Your task to perform on an android device: Go to ESPN.com Image 0: 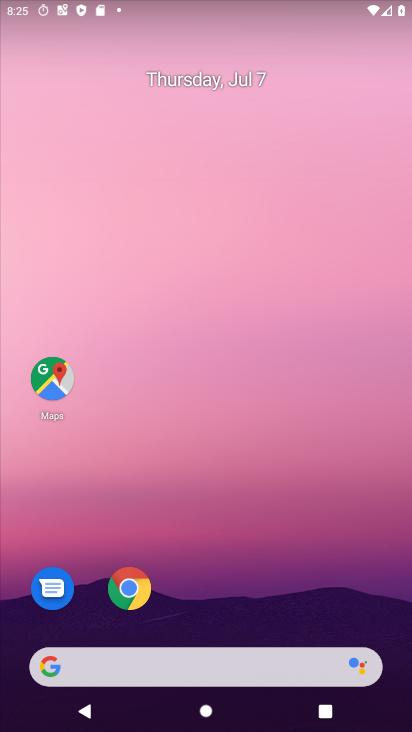
Step 0: click (128, 592)
Your task to perform on an android device: Go to ESPN.com Image 1: 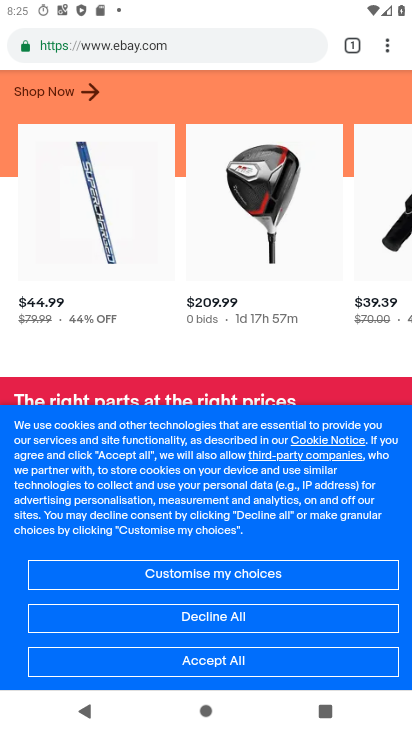
Step 1: drag from (389, 44) to (280, 86)
Your task to perform on an android device: Go to ESPN.com Image 2: 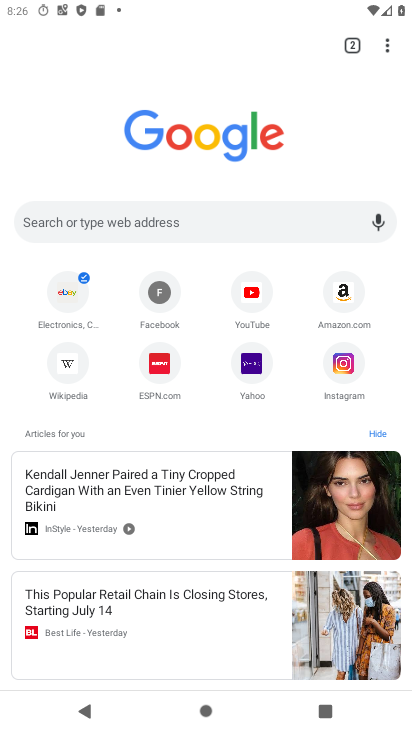
Step 2: click (164, 363)
Your task to perform on an android device: Go to ESPN.com Image 3: 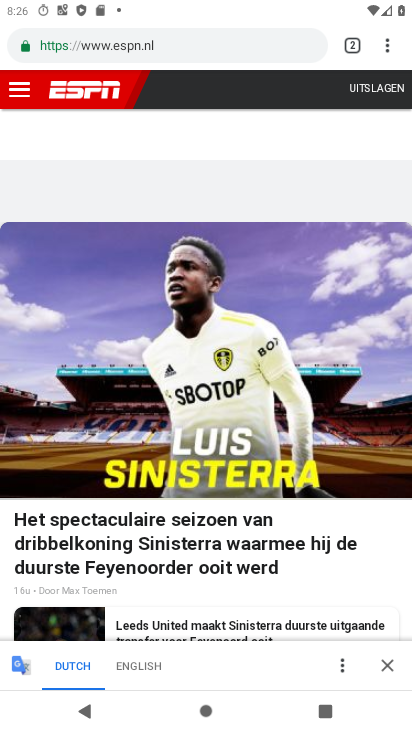
Step 3: drag from (246, 608) to (404, 225)
Your task to perform on an android device: Go to ESPN.com Image 4: 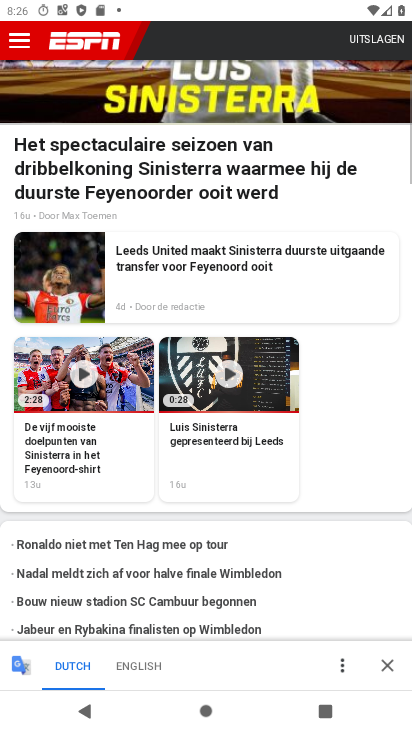
Step 4: click (149, 669)
Your task to perform on an android device: Go to ESPN.com Image 5: 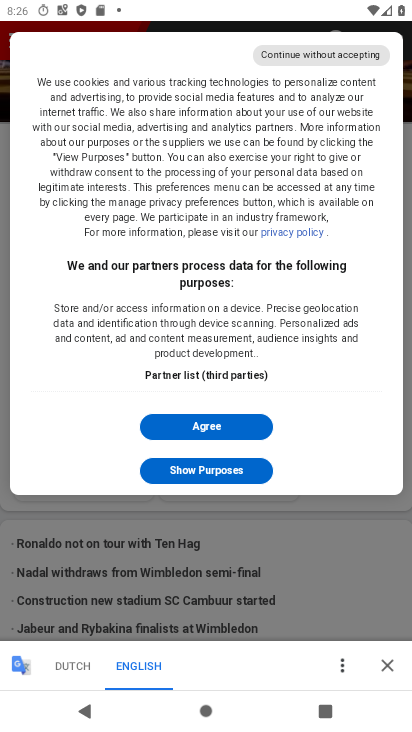
Step 5: click (239, 424)
Your task to perform on an android device: Go to ESPN.com Image 6: 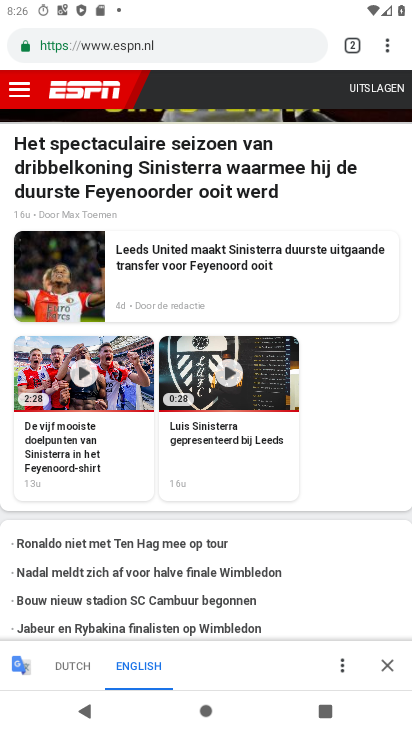
Step 6: task complete